Your task to perform on an android device: Open Youtube and go to "Your channel" Image 0: 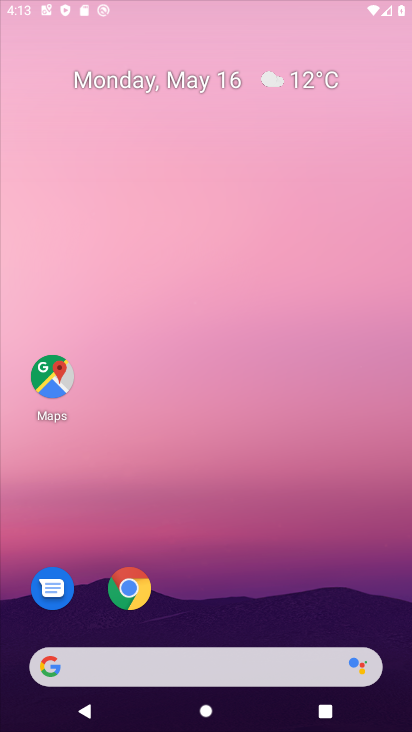
Step 0: drag from (218, 637) to (338, 31)
Your task to perform on an android device: Open Youtube and go to "Your channel" Image 1: 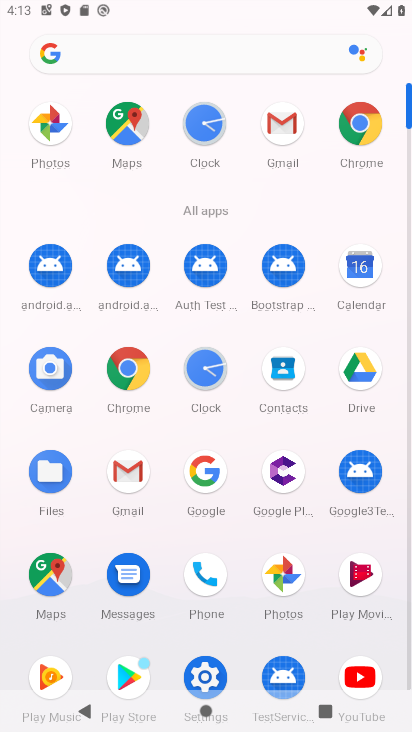
Step 1: click (364, 669)
Your task to perform on an android device: Open Youtube and go to "Your channel" Image 2: 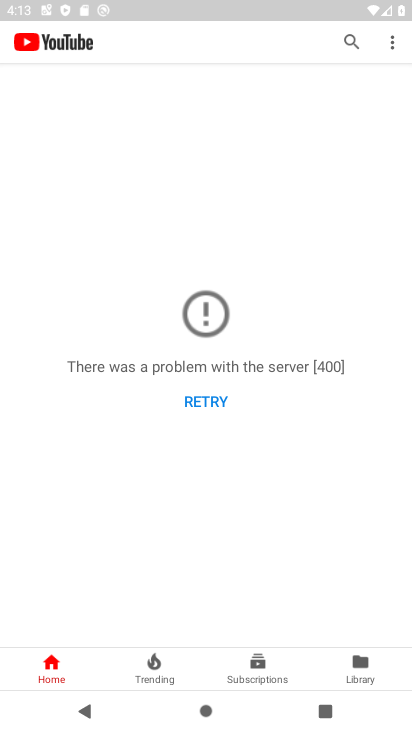
Step 2: task complete